Your task to perform on an android device: add a contact Image 0: 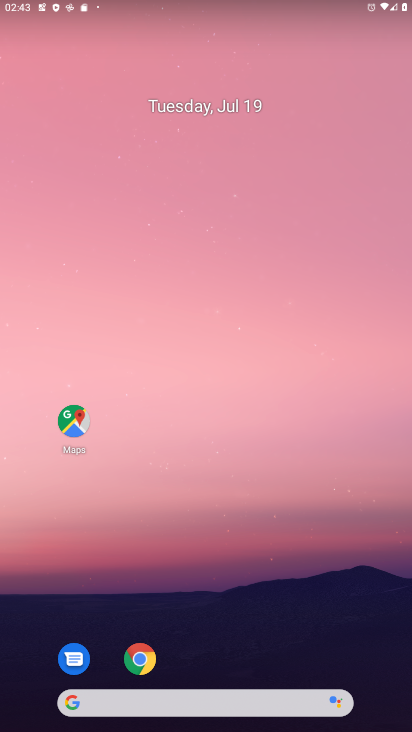
Step 0: press home button
Your task to perform on an android device: add a contact Image 1: 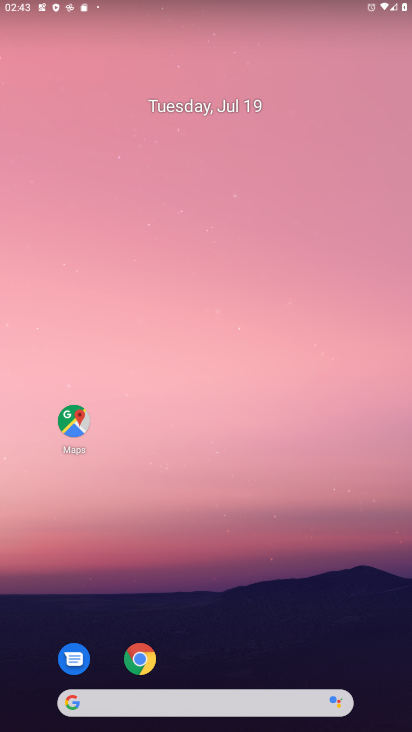
Step 1: press home button
Your task to perform on an android device: add a contact Image 2: 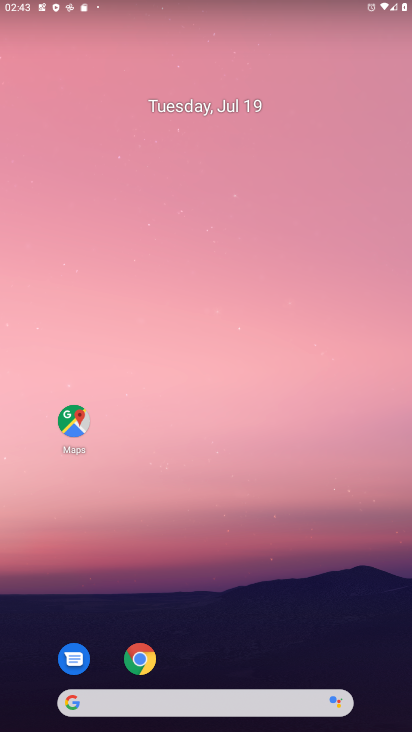
Step 2: drag from (282, 641) to (325, 124)
Your task to perform on an android device: add a contact Image 3: 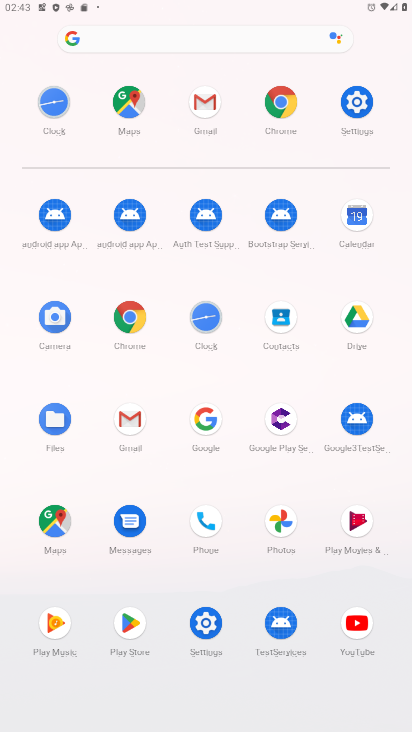
Step 3: click (279, 330)
Your task to perform on an android device: add a contact Image 4: 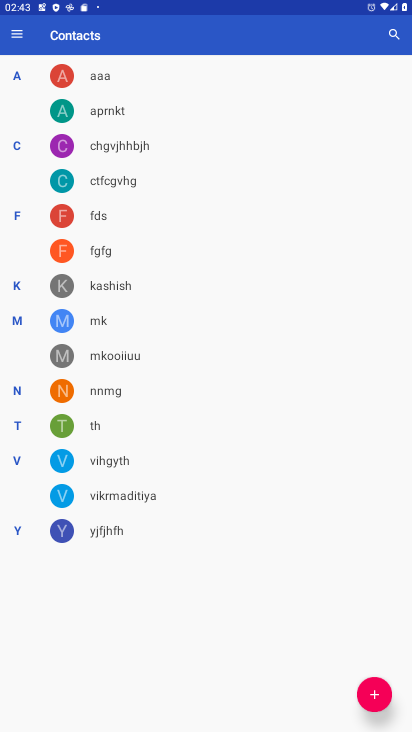
Step 4: click (367, 689)
Your task to perform on an android device: add a contact Image 5: 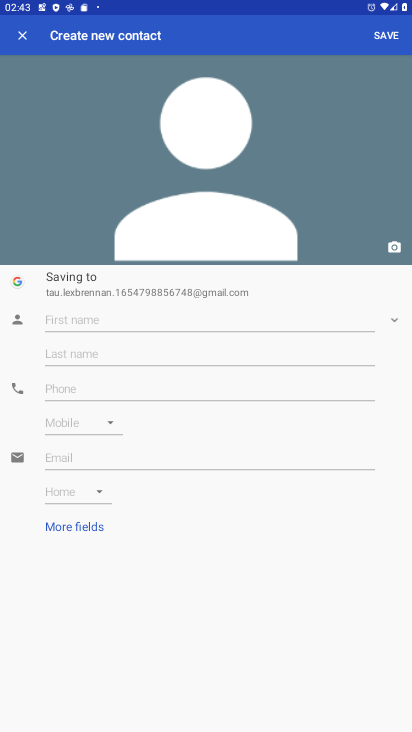
Step 5: click (280, 325)
Your task to perform on an android device: add a contact Image 6: 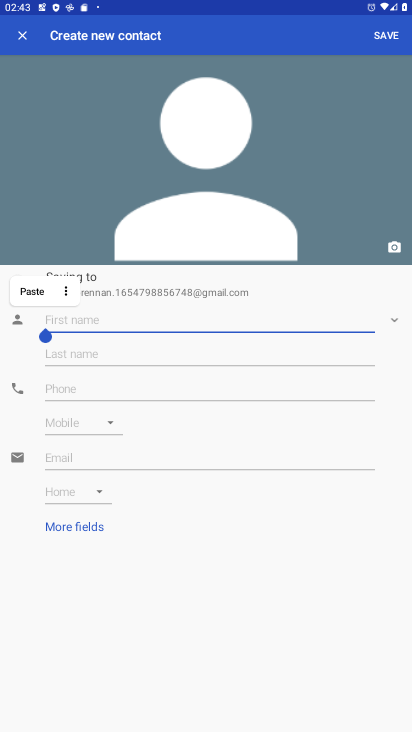
Step 6: type "hdcvbhbskl"
Your task to perform on an android device: add a contact Image 7: 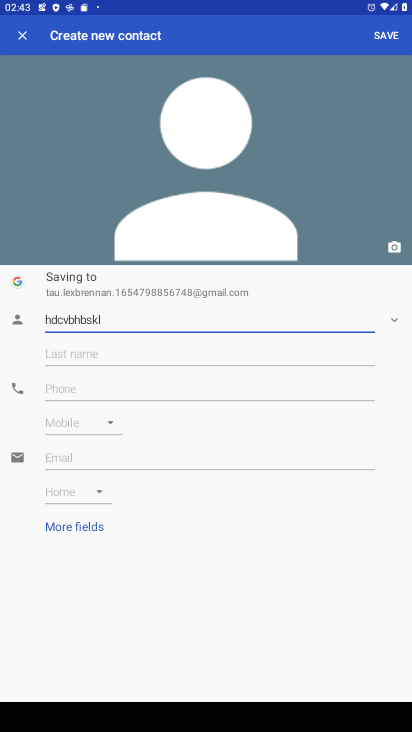
Step 7: click (144, 383)
Your task to perform on an android device: add a contact Image 8: 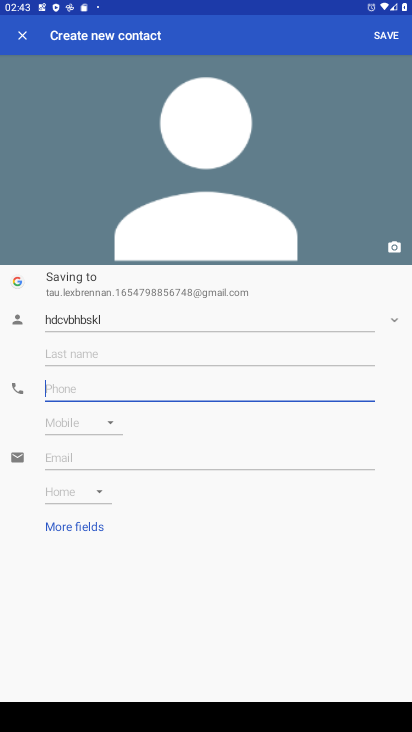
Step 8: type "76675865"
Your task to perform on an android device: add a contact Image 9: 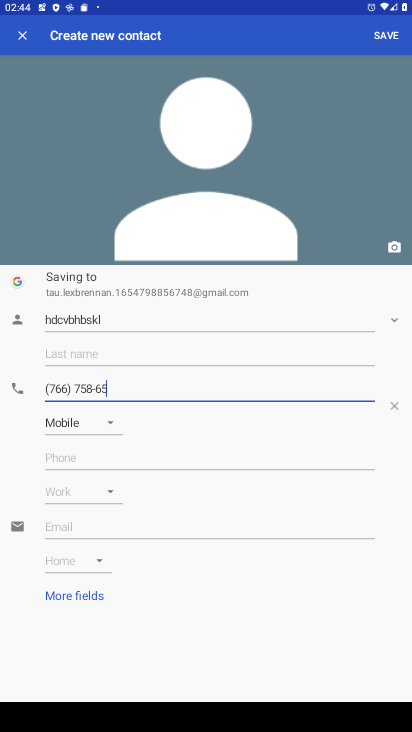
Step 9: click (384, 26)
Your task to perform on an android device: add a contact Image 10: 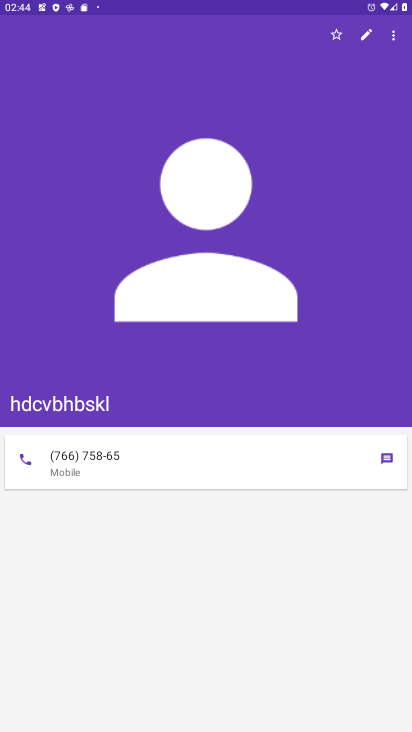
Step 10: task complete